Your task to perform on an android device: change the clock display to analog Image 0: 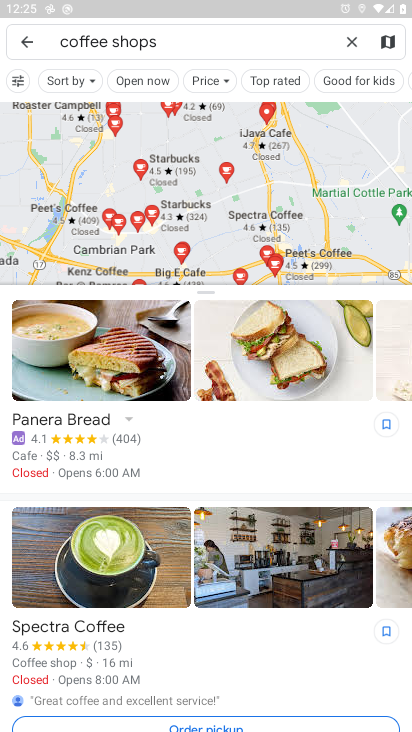
Step 0: press home button
Your task to perform on an android device: change the clock display to analog Image 1: 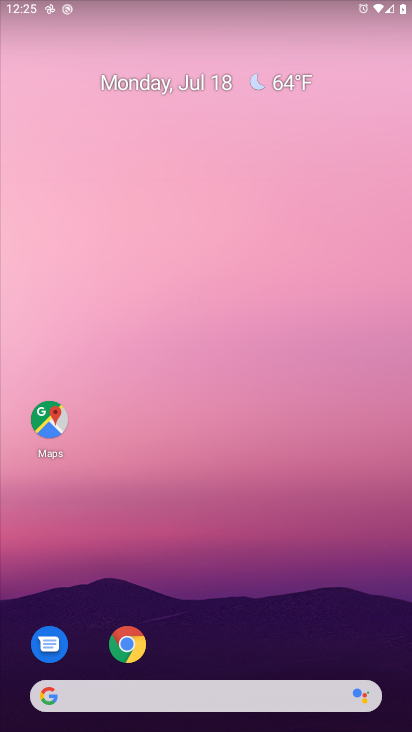
Step 1: drag from (284, 675) to (261, 150)
Your task to perform on an android device: change the clock display to analog Image 2: 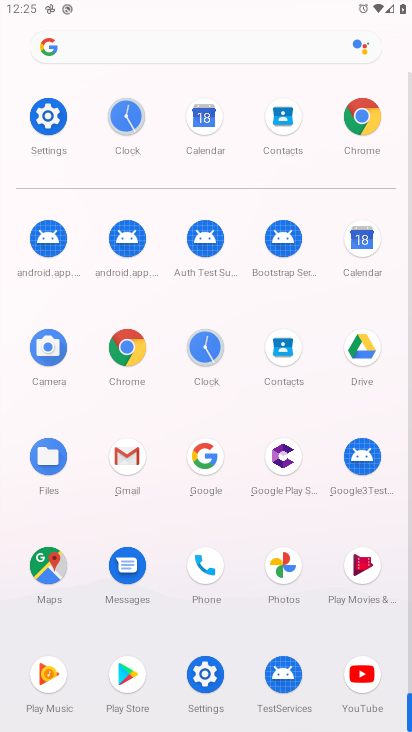
Step 2: click (122, 113)
Your task to perform on an android device: change the clock display to analog Image 3: 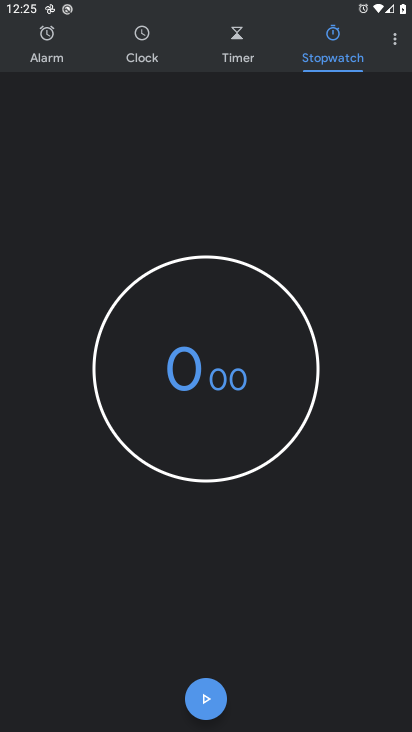
Step 3: click (399, 37)
Your task to perform on an android device: change the clock display to analog Image 4: 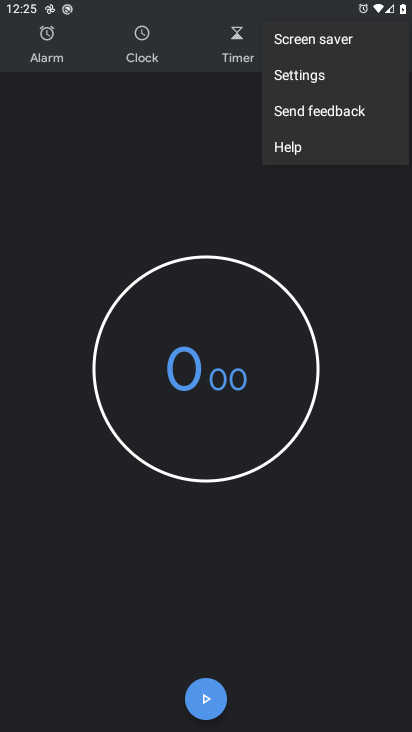
Step 4: click (308, 72)
Your task to perform on an android device: change the clock display to analog Image 5: 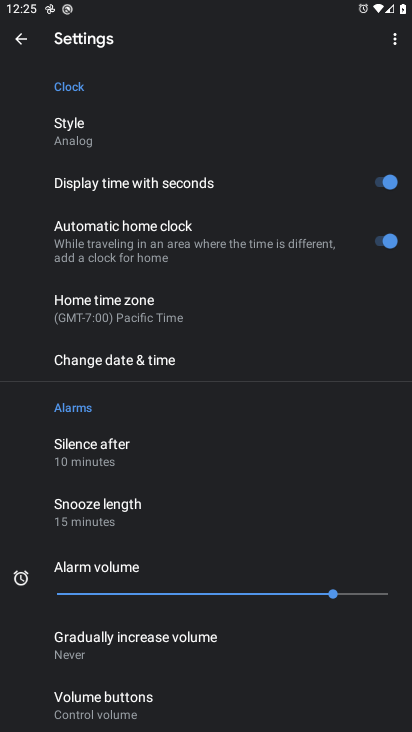
Step 5: task complete